Your task to perform on an android device: open app "Facebook" Image 0: 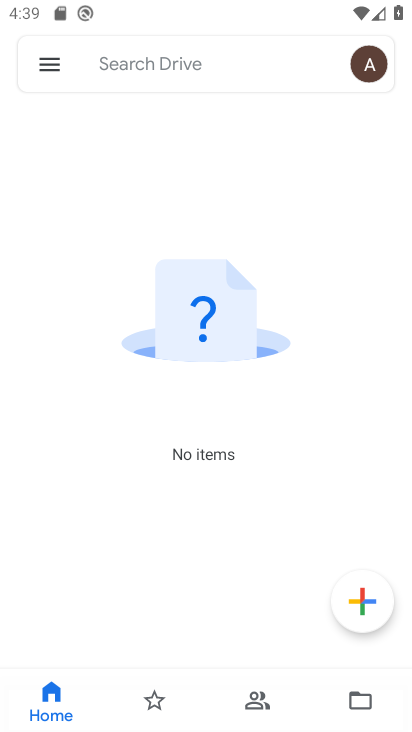
Step 0: drag from (299, 548) to (333, 65)
Your task to perform on an android device: open app "Facebook" Image 1: 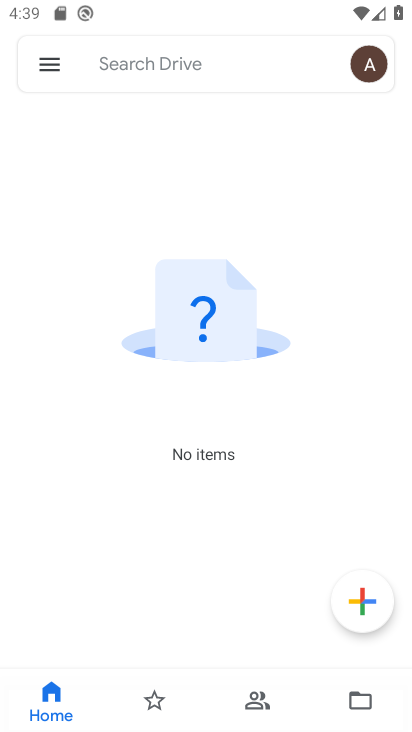
Step 1: press home button
Your task to perform on an android device: open app "Facebook" Image 2: 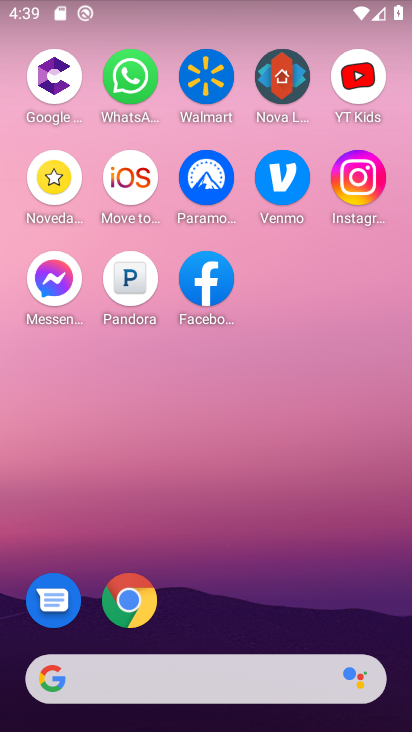
Step 2: drag from (276, 425) to (321, 96)
Your task to perform on an android device: open app "Facebook" Image 3: 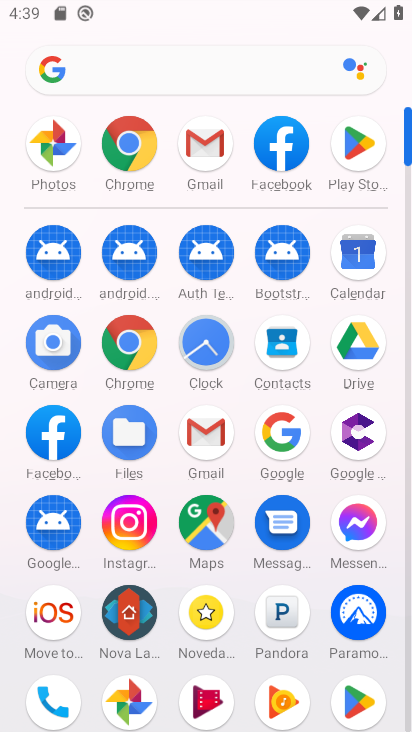
Step 3: click (361, 137)
Your task to perform on an android device: open app "Facebook" Image 4: 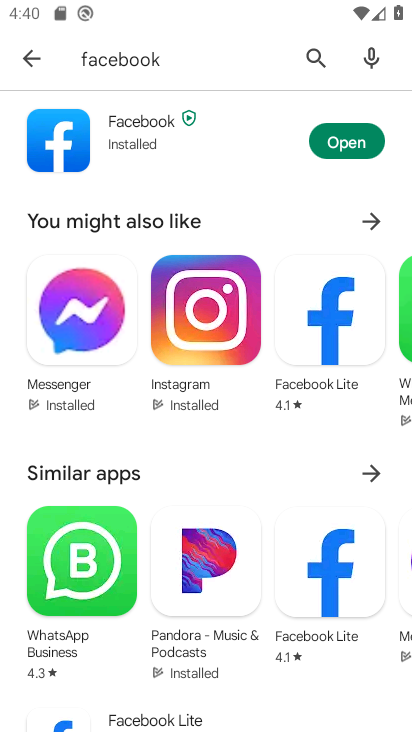
Step 4: click (218, 62)
Your task to perform on an android device: open app "Facebook" Image 5: 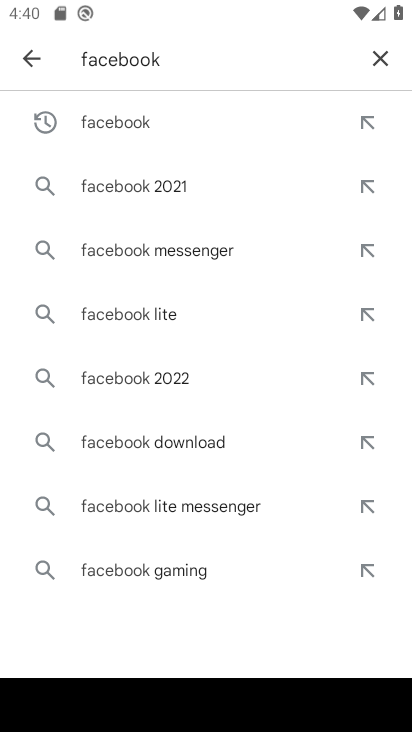
Step 5: click (381, 53)
Your task to perform on an android device: open app "Facebook" Image 6: 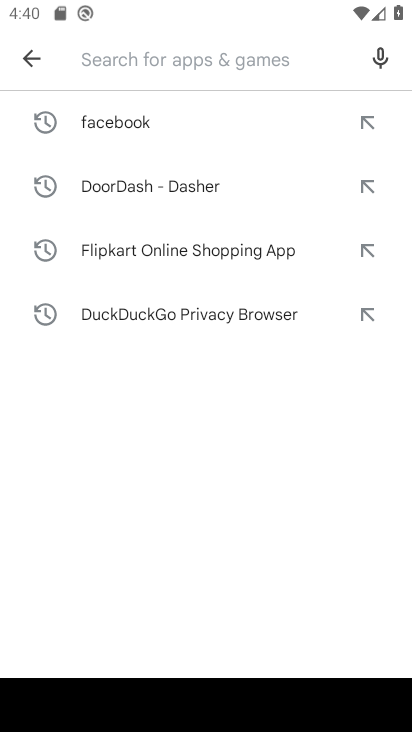
Step 6: click (224, 135)
Your task to perform on an android device: open app "Facebook" Image 7: 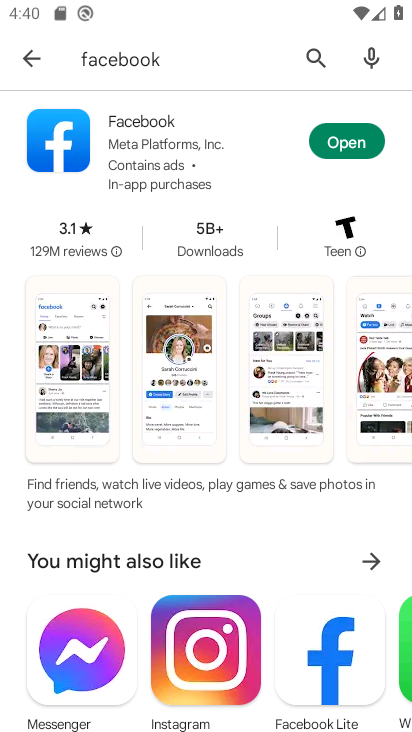
Step 7: click (344, 144)
Your task to perform on an android device: open app "Facebook" Image 8: 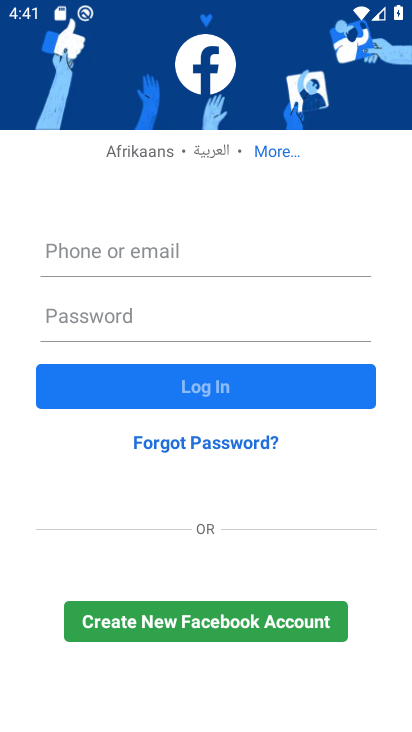
Step 8: task complete